Your task to perform on an android device: Go to settings Image 0: 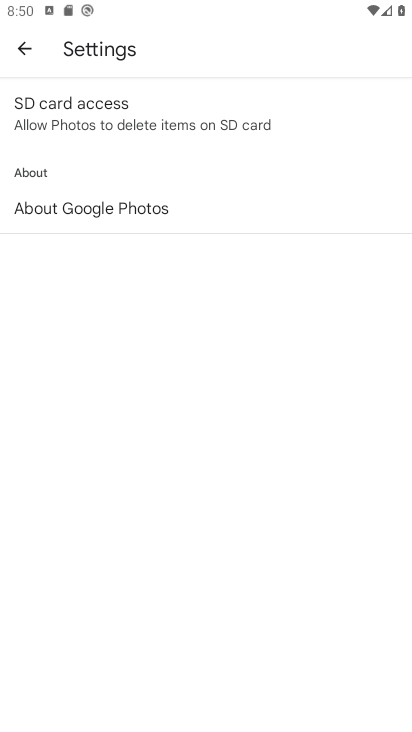
Step 0: press home button
Your task to perform on an android device: Go to settings Image 1: 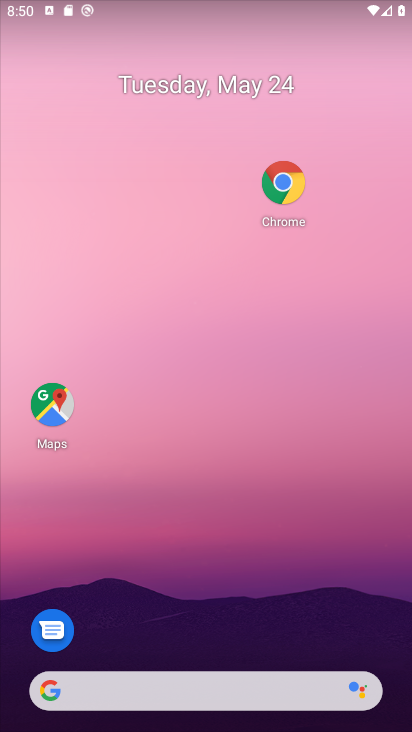
Step 1: drag from (212, 408) to (226, 28)
Your task to perform on an android device: Go to settings Image 2: 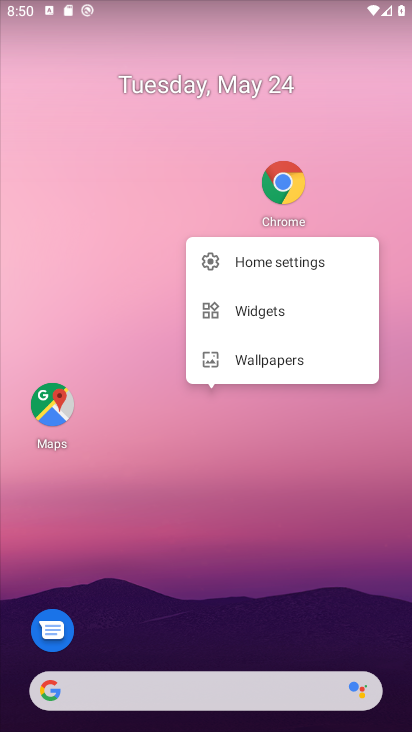
Step 2: click (74, 296)
Your task to perform on an android device: Go to settings Image 3: 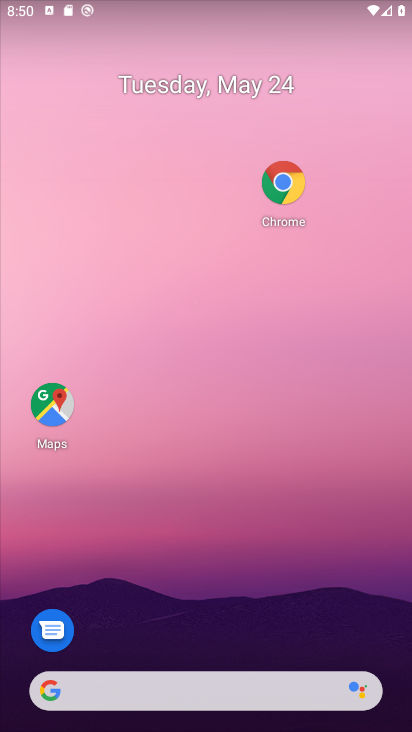
Step 3: drag from (235, 551) to (242, 141)
Your task to perform on an android device: Go to settings Image 4: 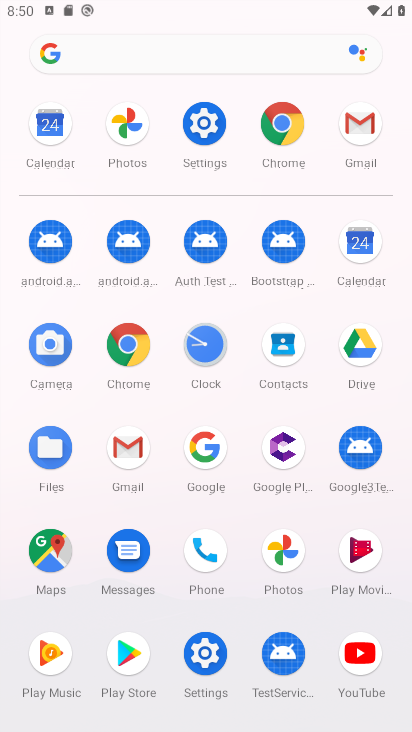
Step 4: click (212, 138)
Your task to perform on an android device: Go to settings Image 5: 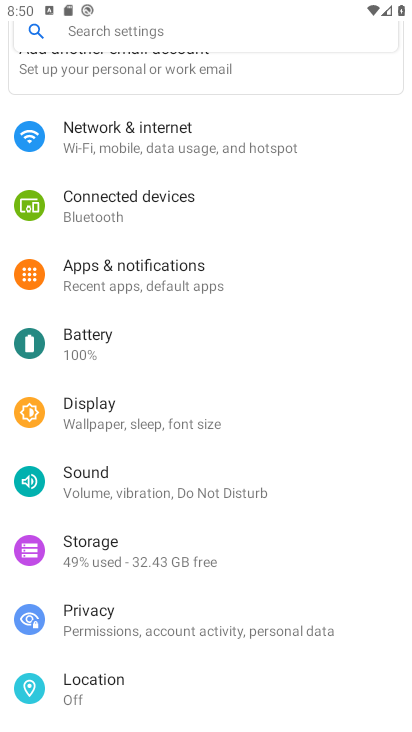
Step 5: task complete